Your task to perform on an android device: open app "Facebook Messenger" (install if not already installed) Image 0: 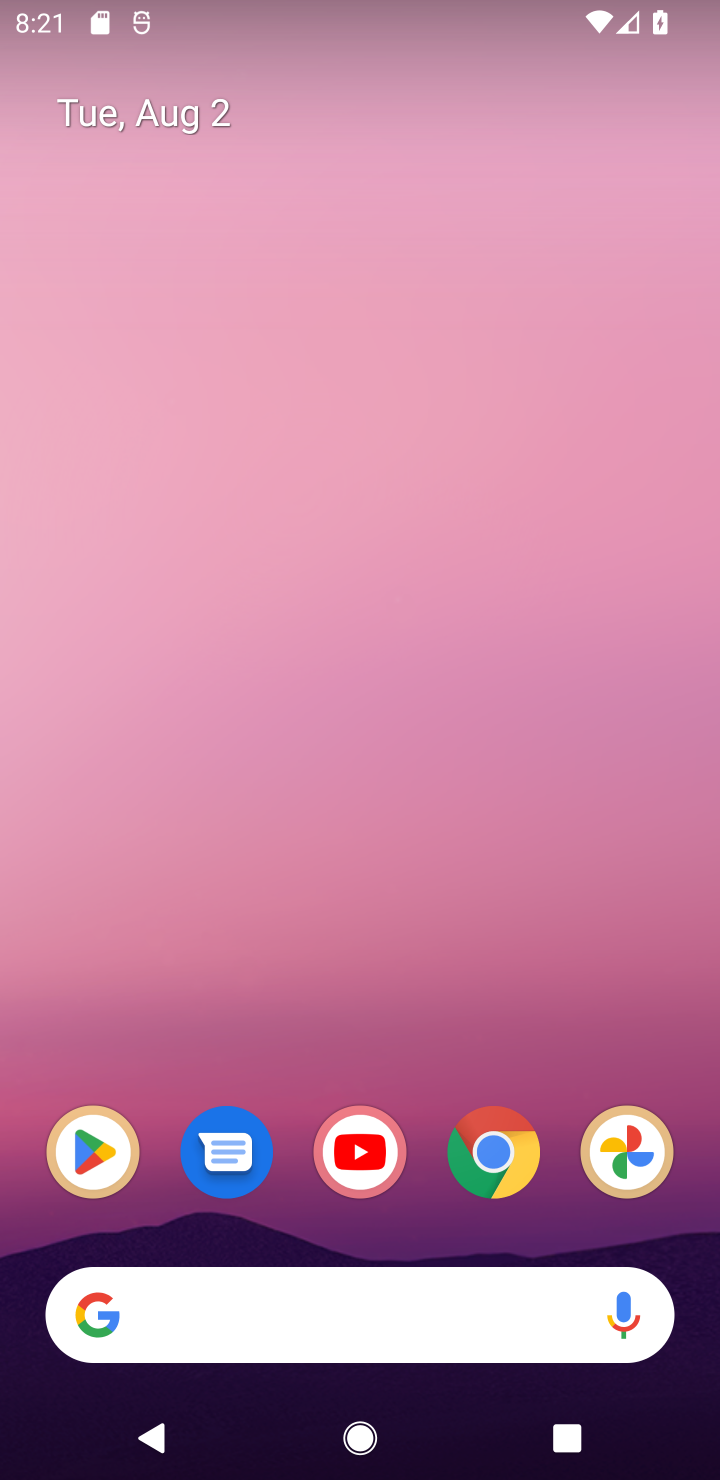
Step 0: click (90, 1160)
Your task to perform on an android device: open app "Facebook Messenger" (install if not already installed) Image 1: 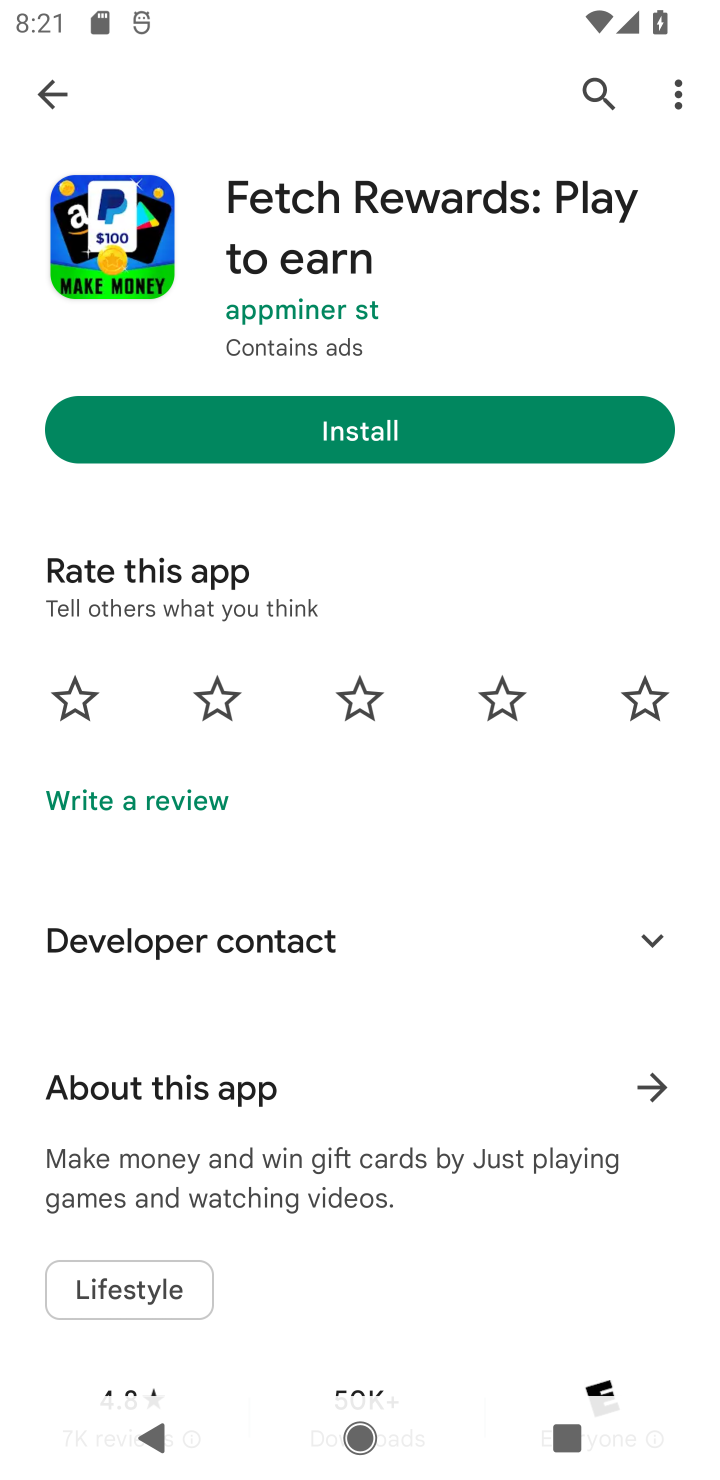
Step 1: click (46, 102)
Your task to perform on an android device: open app "Facebook Messenger" (install if not already installed) Image 2: 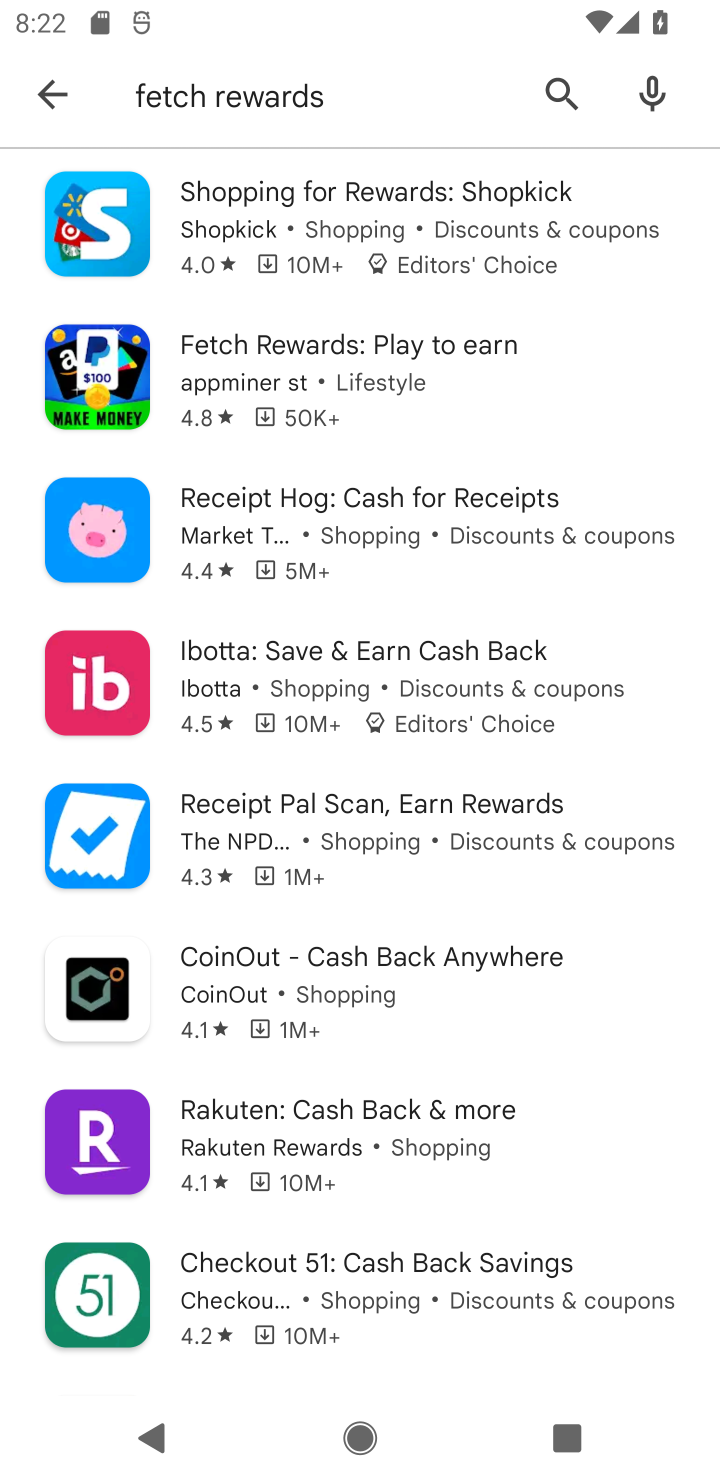
Step 2: click (45, 92)
Your task to perform on an android device: open app "Facebook Messenger" (install if not already installed) Image 3: 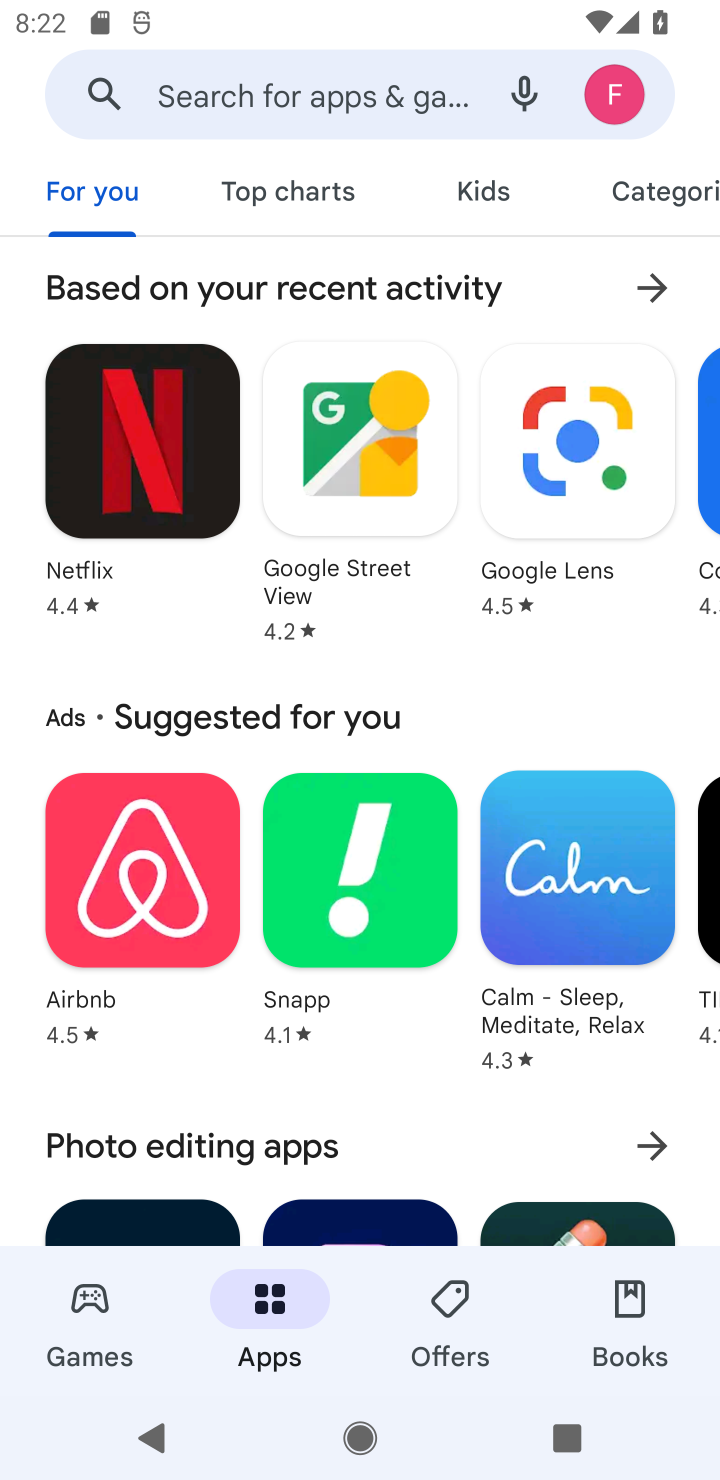
Step 3: click (278, 92)
Your task to perform on an android device: open app "Facebook Messenger" (install if not already installed) Image 4: 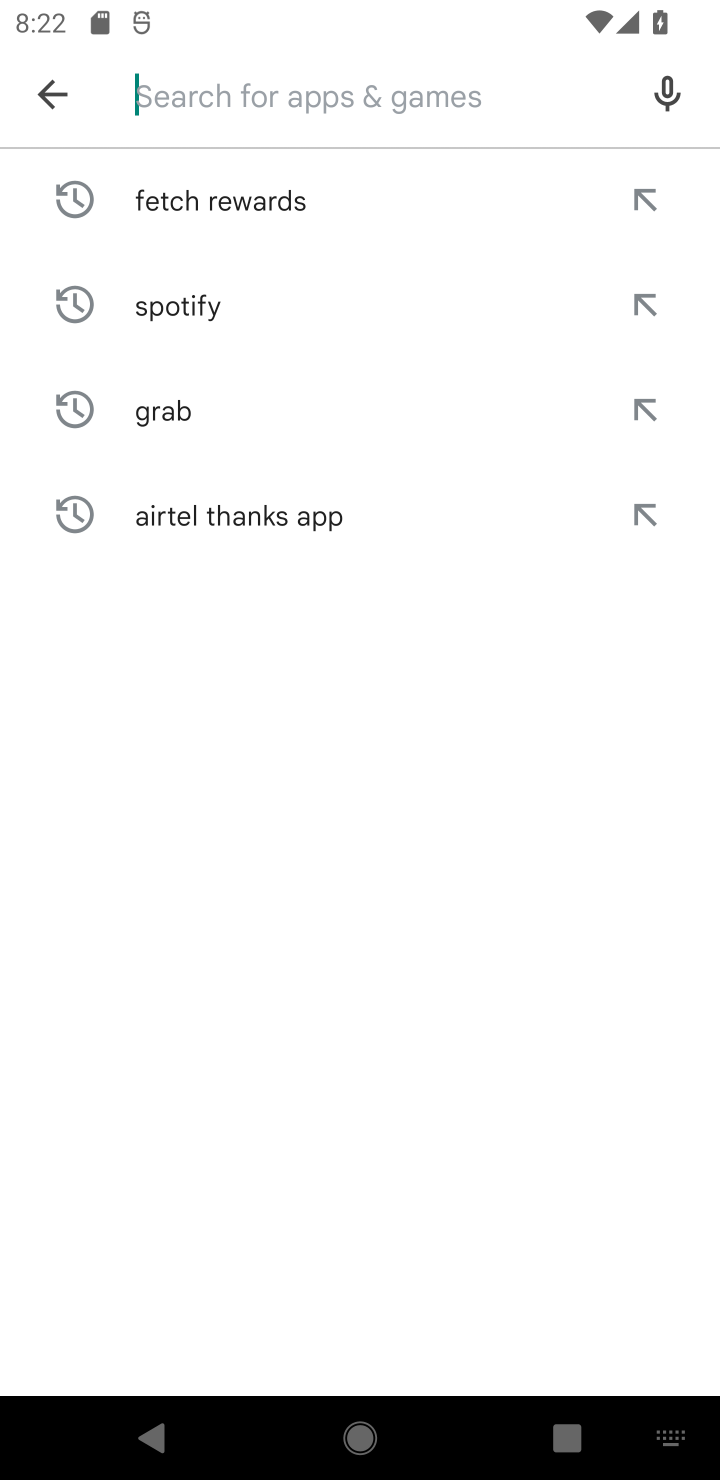
Step 4: type "Facebook Messenger"
Your task to perform on an android device: open app "Facebook Messenger" (install if not already installed) Image 5: 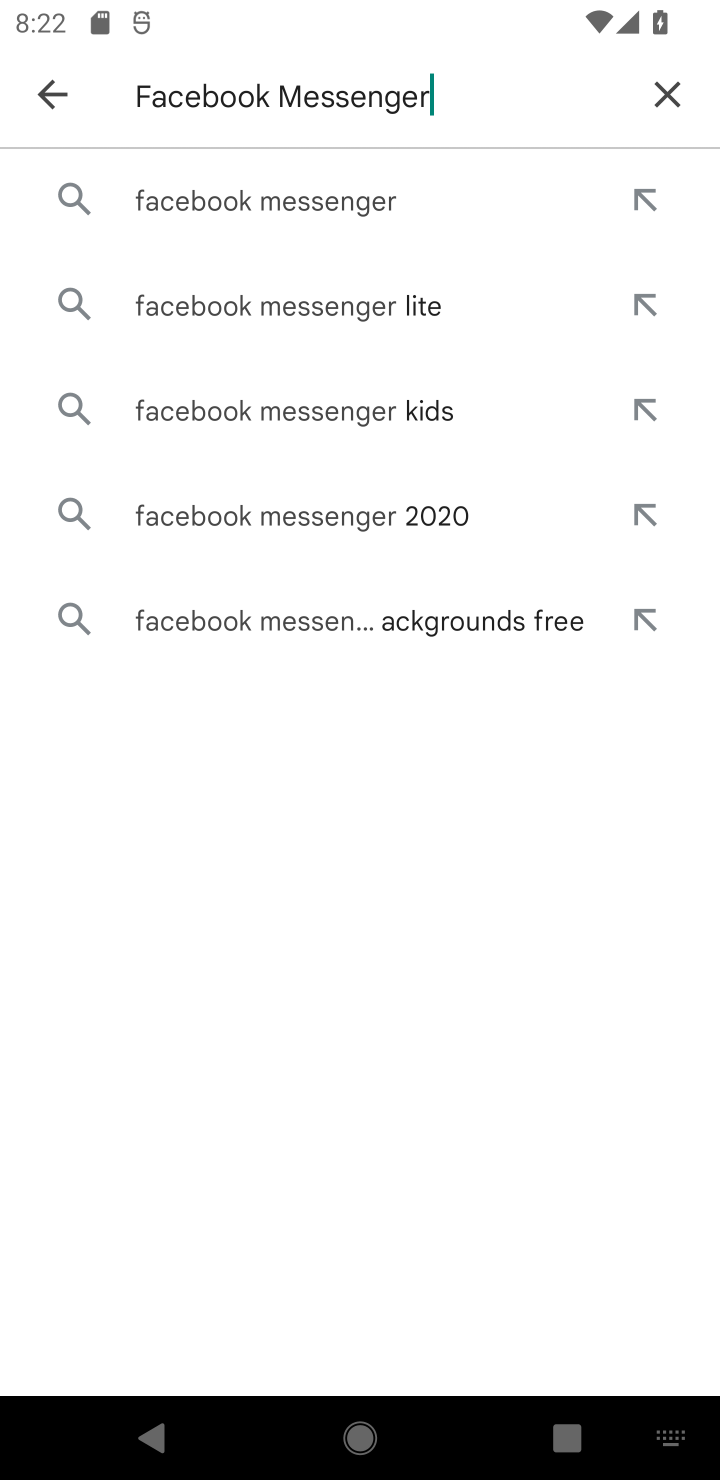
Step 5: click (289, 198)
Your task to perform on an android device: open app "Facebook Messenger" (install if not already installed) Image 6: 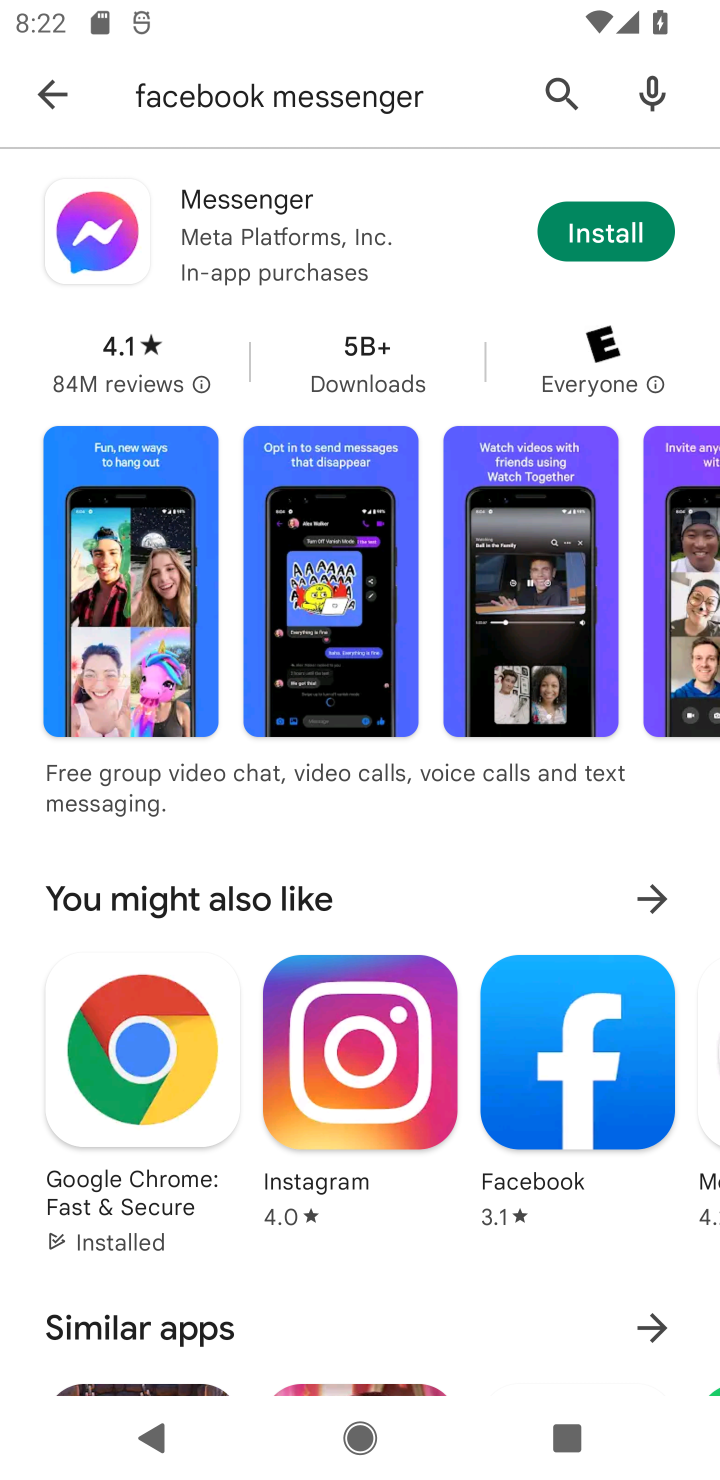
Step 6: click (628, 233)
Your task to perform on an android device: open app "Facebook Messenger" (install if not already installed) Image 7: 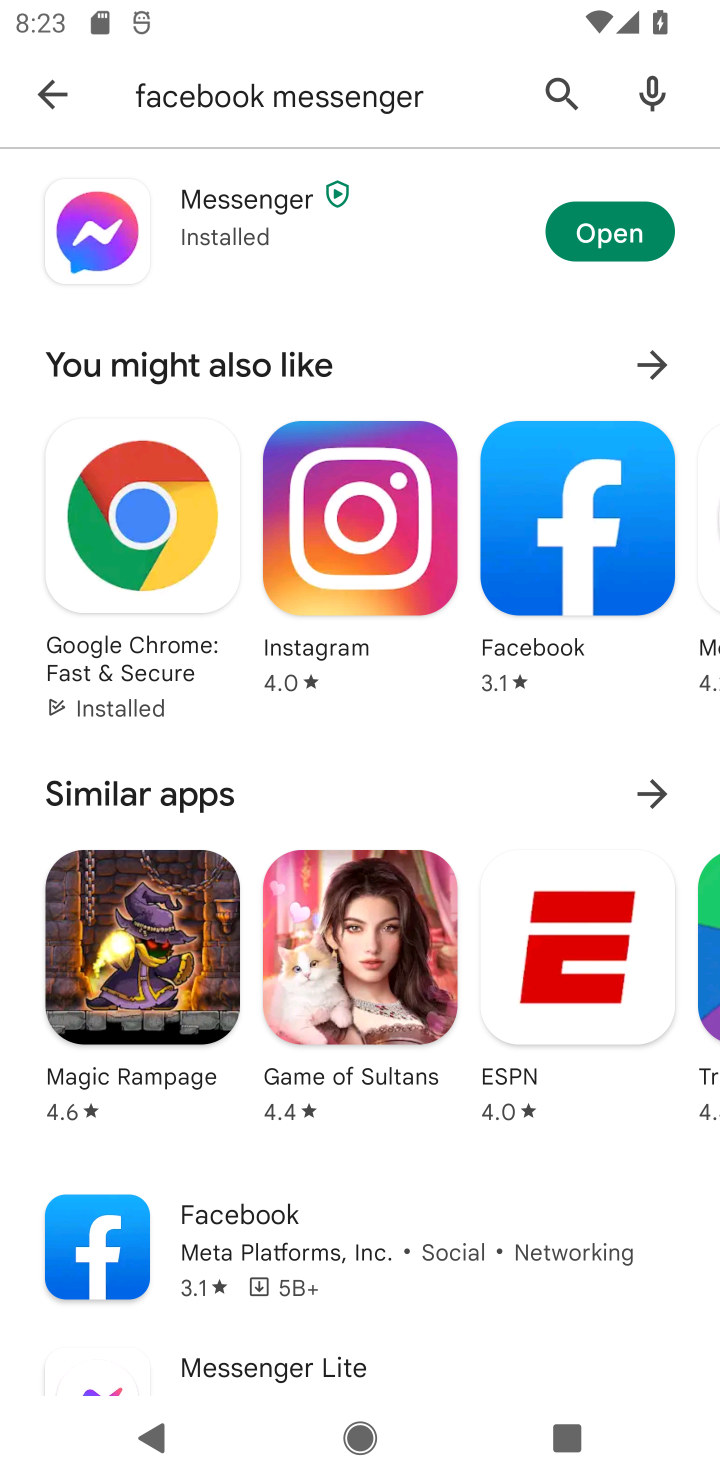
Step 7: click (607, 229)
Your task to perform on an android device: open app "Facebook Messenger" (install if not already installed) Image 8: 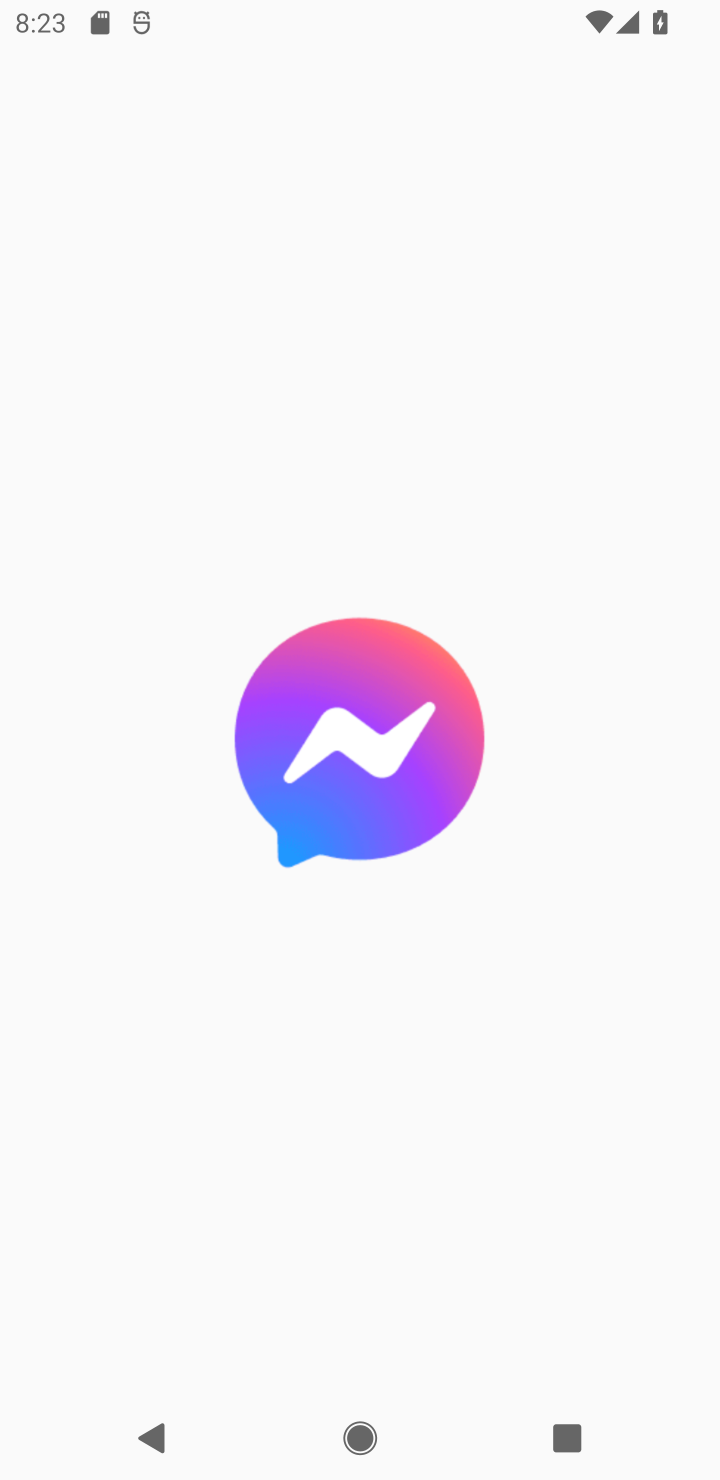
Step 8: task complete